Your task to perform on an android device: make emails show in primary in the gmail app Image 0: 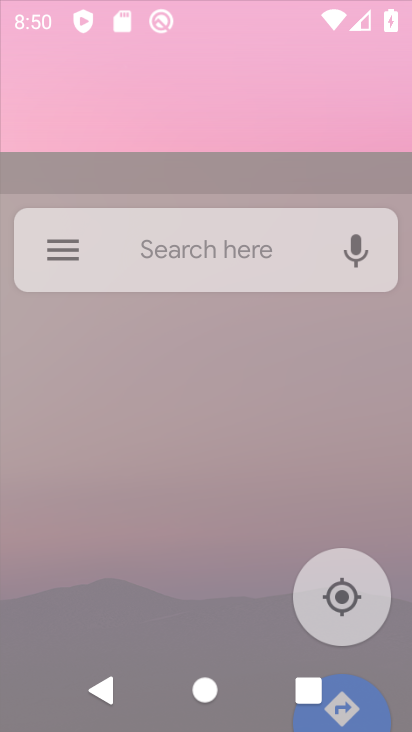
Step 0: press home button
Your task to perform on an android device: make emails show in primary in the gmail app Image 1: 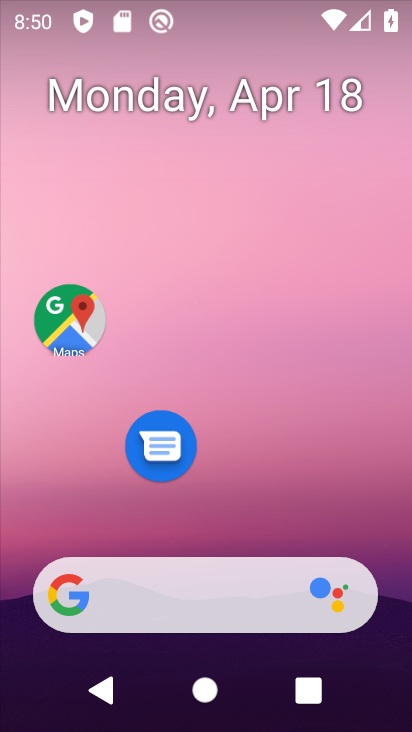
Step 1: drag from (224, 533) to (280, 49)
Your task to perform on an android device: make emails show in primary in the gmail app Image 2: 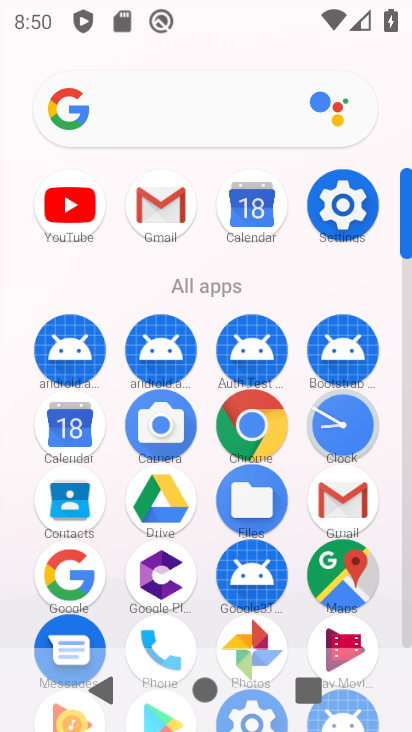
Step 2: click (340, 494)
Your task to perform on an android device: make emails show in primary in the gmail app Image 3: 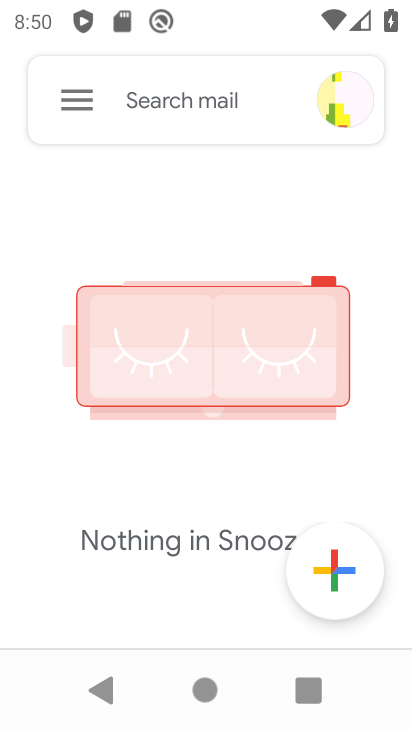
Step 3: click (86, 106)
Your task to perform on an android device: make emails show in primary in the gmail app Image 4: 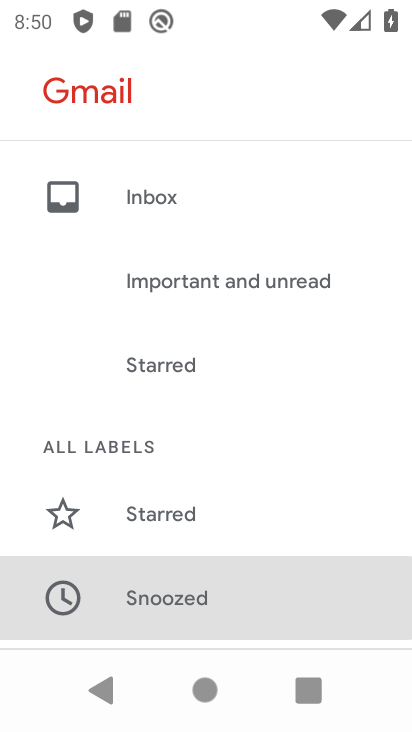
Step 4: drag from (167, 570) to (206, 26)
Your task to perform on an android device: make emails show in primary in the gmail app Image 5: 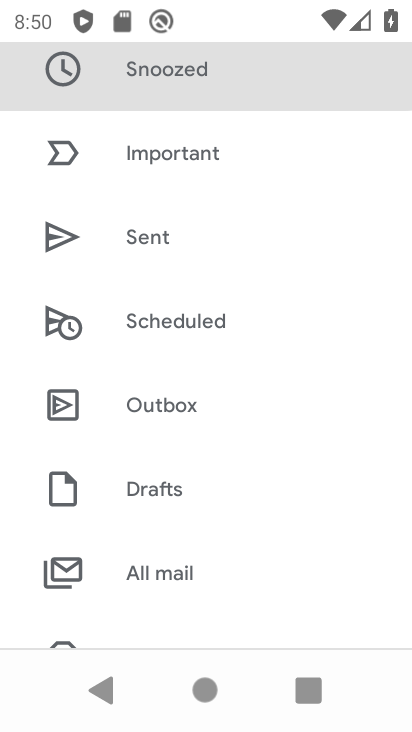
Step 5: drag from (172, 522) to (205, 87)
Your task to perform on an android device: make emails show in primary in the gmail app Image 6: 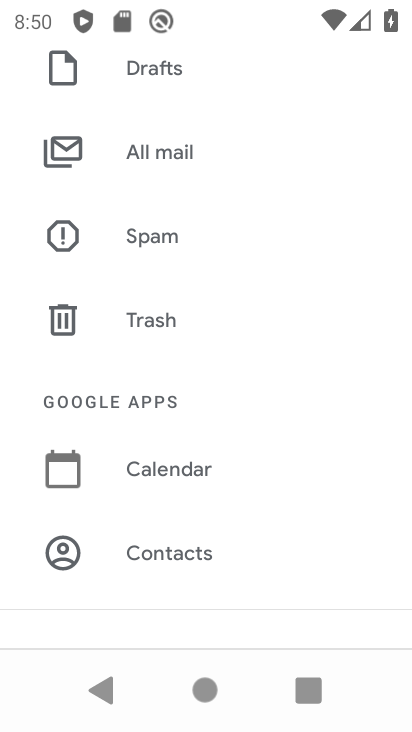
Step 6: drag from (192, 491) to (244, 6)
Your task to perform on an android device: make emails show in primary in the gmail app Image 7: 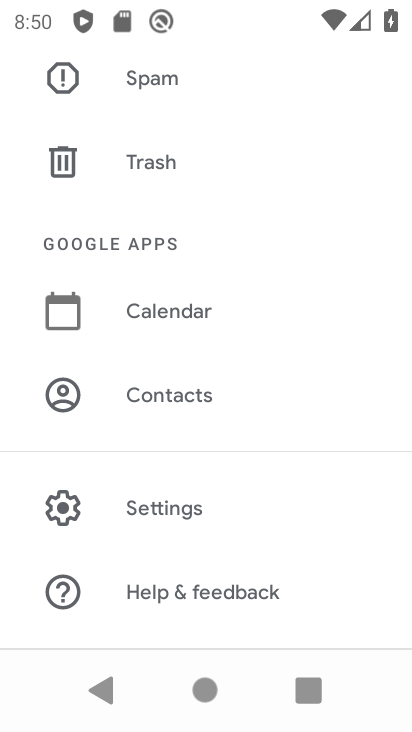
Step 7: click (181, 497)
Your task to perform on an android device: make emails show in primary in the gmail app Image 8: 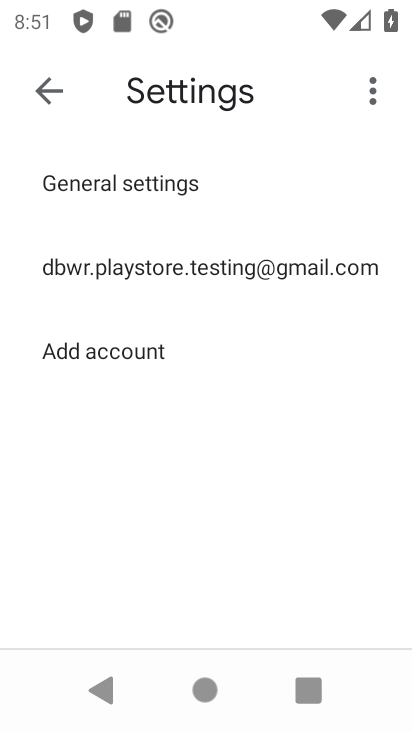
Step 8: click (176, 269)
Your task to perform on an android device: make emails show in primary in the gmail app Image 9: 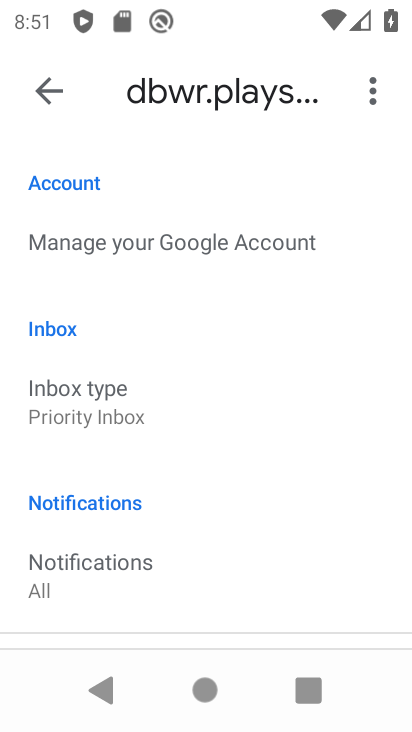
Step 9: click (146, 394)
Your task to perform on an android device: make emails show in primary in the gmail app Image 10: 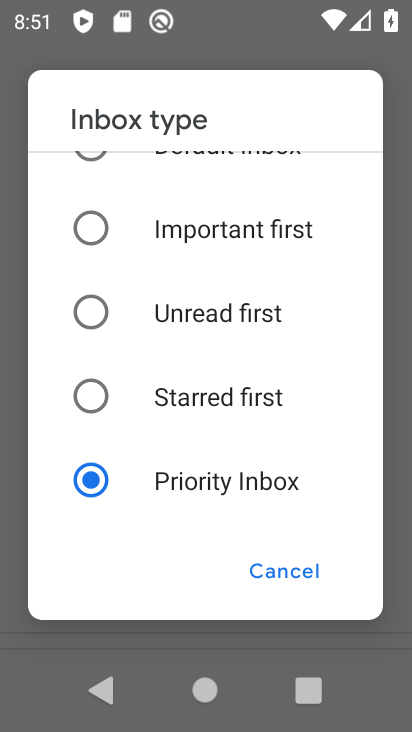
Step 10: drag from (124, 214) to (119, 402)
Your task to perform on an android device: make emails show in primary in the gmail app Image 11: 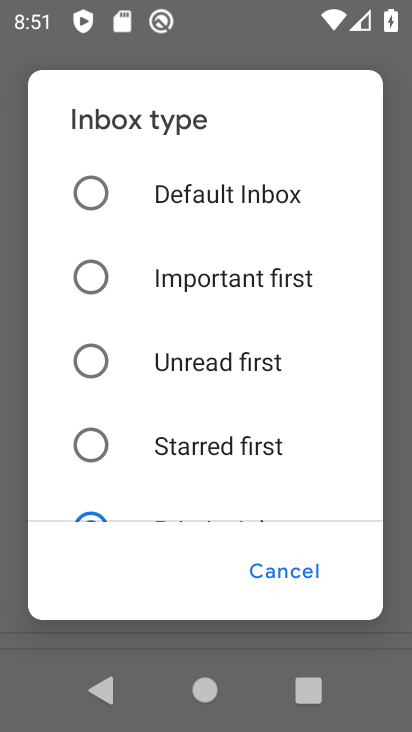
Step 11: click (88, 191)
Your task to perform on an android device: make emails show in primary in the gmail app Image 12: 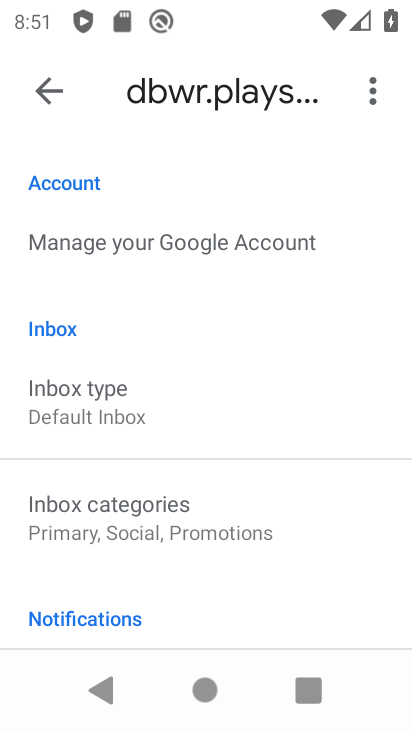
Step 12: task complete